Your task to perform on an android device: toggle wifi Image 0: 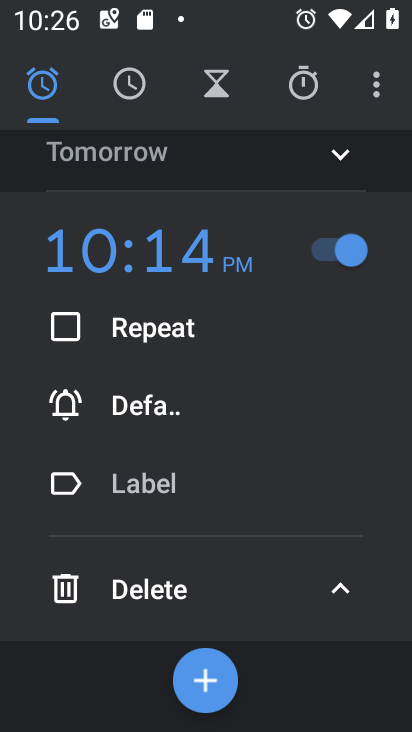
Step 0: press home button
Your task to perform on an android device: toggle wifi Image 1: 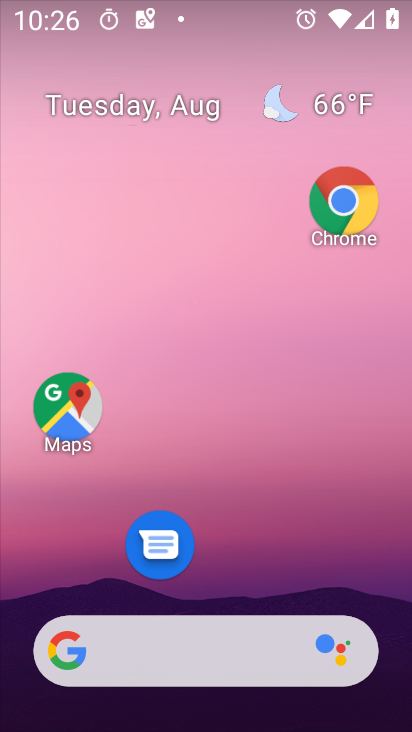
Step 1: drag from (247, 616) to (237, 1)
Your task to perform on an android device: toggle wifi Image 2: 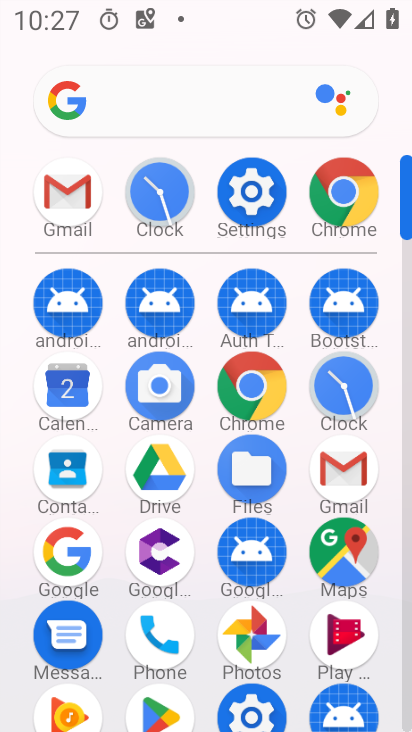
Step 2: click (242, 212)
Your task to perform on an android device: toggle wifi Image 3: 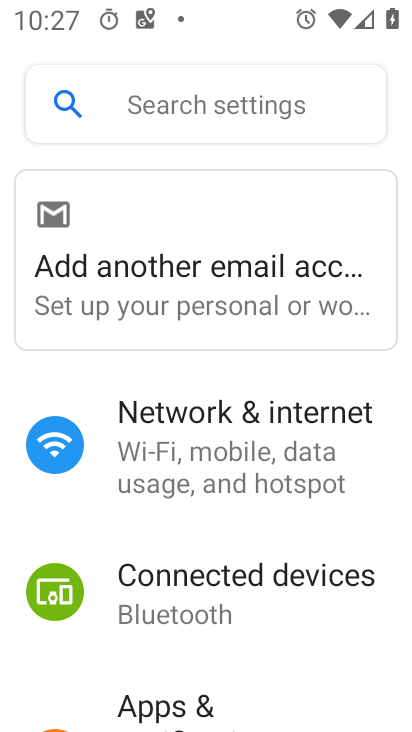
Step 3: click (318, 426)
Your task to perform on an android device: toggle wifi Image 4: 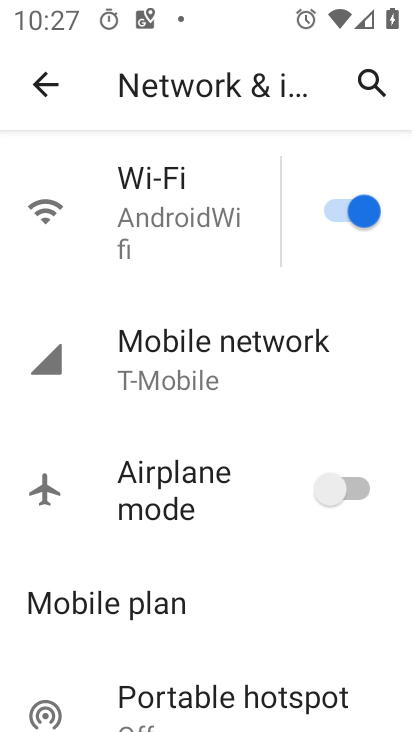
Step 4: click (318, 224)
Your task to perform on an android device: toggle wifi Image 5: 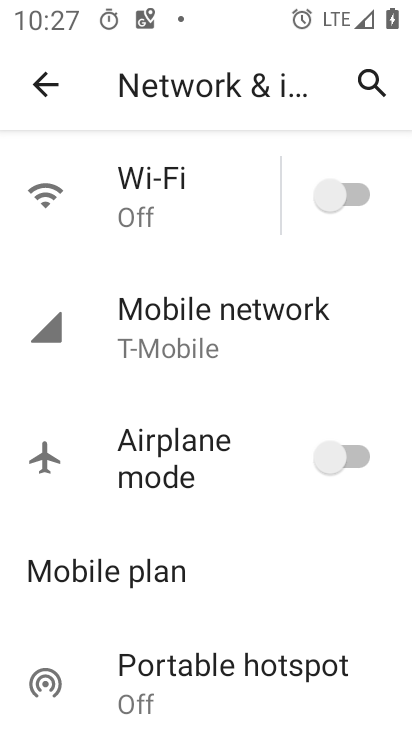
Step 5: task complete